Your task to perform on an android device: Open privacy settings Image 0: 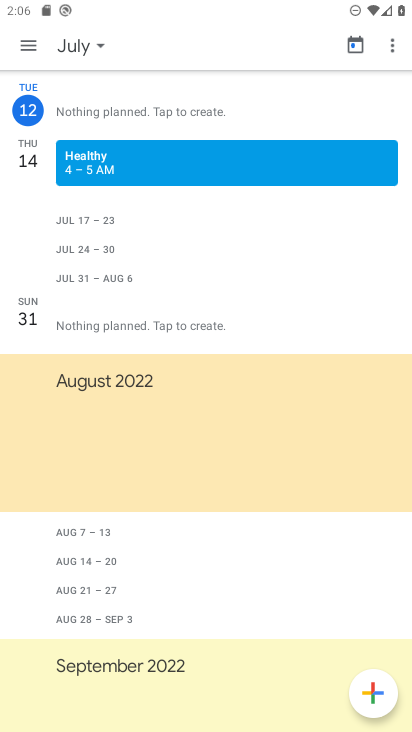
Step 0: press home button
Your task to perform on an android device: Open privacy settings Image 1: 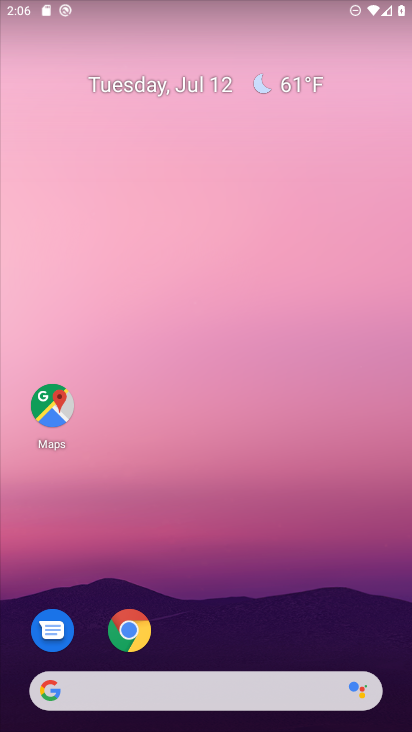
Step 1: drag from (205, 638) to (157, 176)
Your task to perform on an android device: Open privacy settings Image 2: 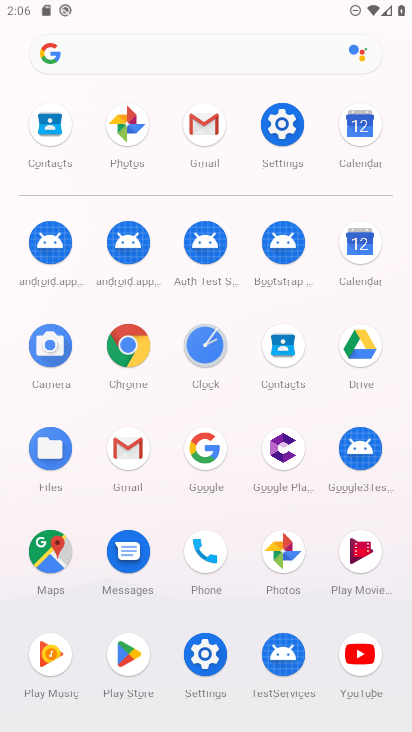
Step 2: click (294, 130)
Your task to perform on an android device: Open privacy settings Image 3: 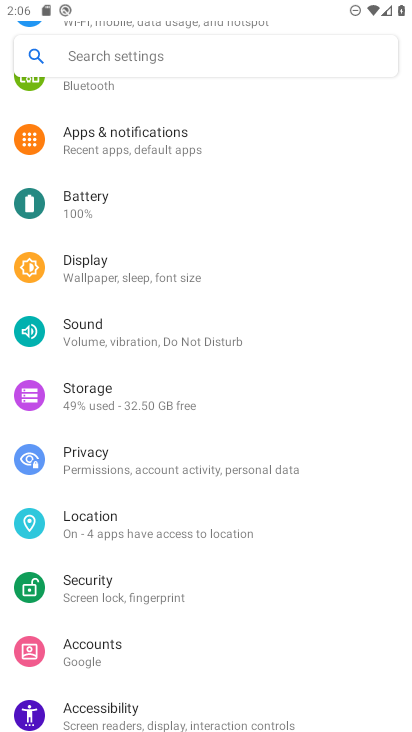
Step 3: click (138, 472)
Your task to perform on an android device: Open privacy settings Image 4: 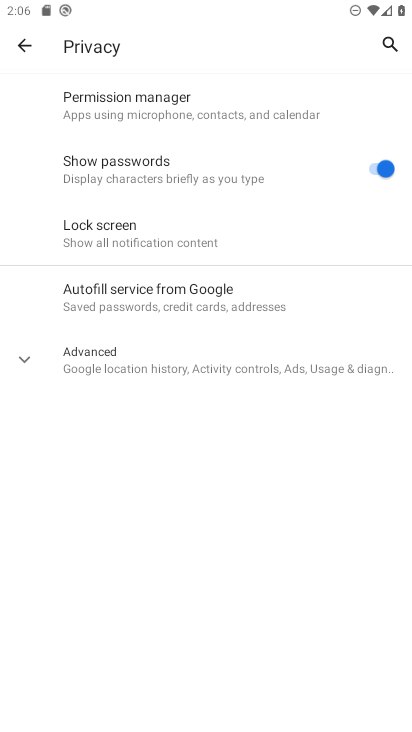
Step 4: task complete